Your task to perform on an android device: turn off improve location accuracy Image 0: 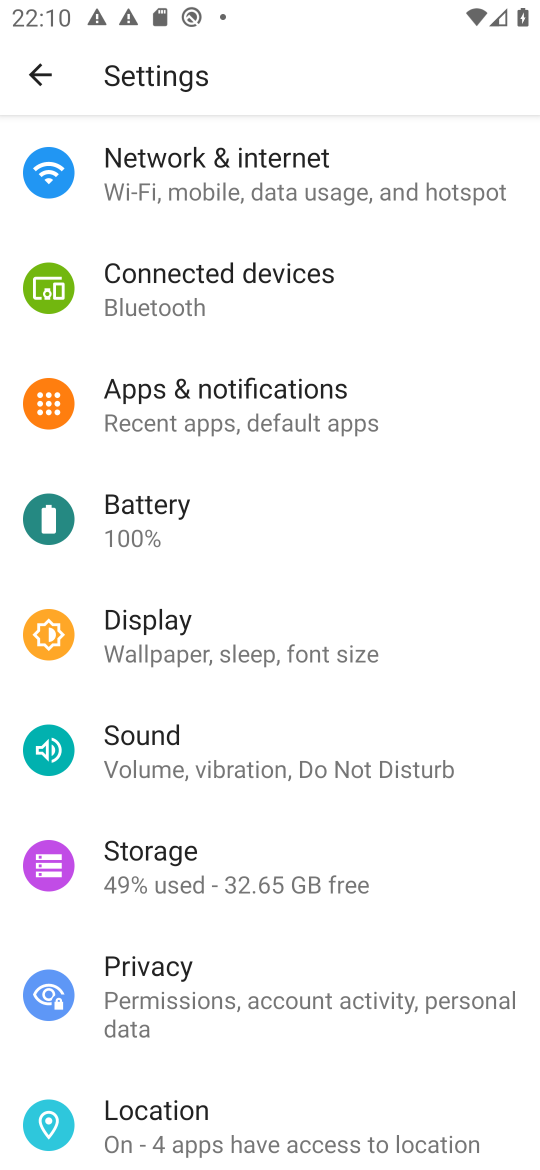
Step 0: click (140, 1111)
Your task to perform on an android device: turn off improve location accuracy Image 1: 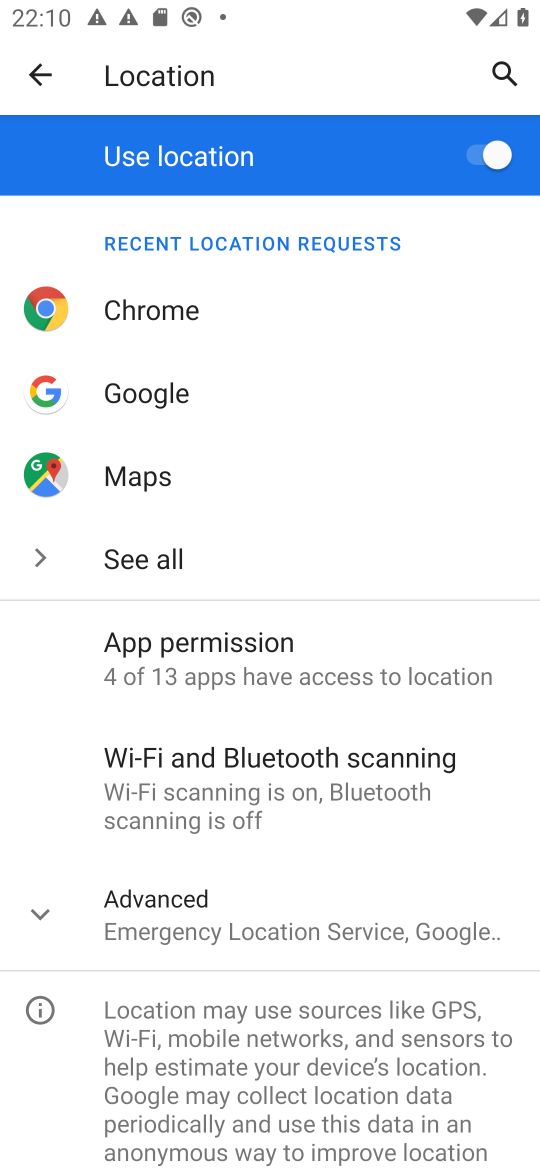
Step 1: click (37, 913)
Your task to perform on an android device: turn off improve location accuracy Image 2: 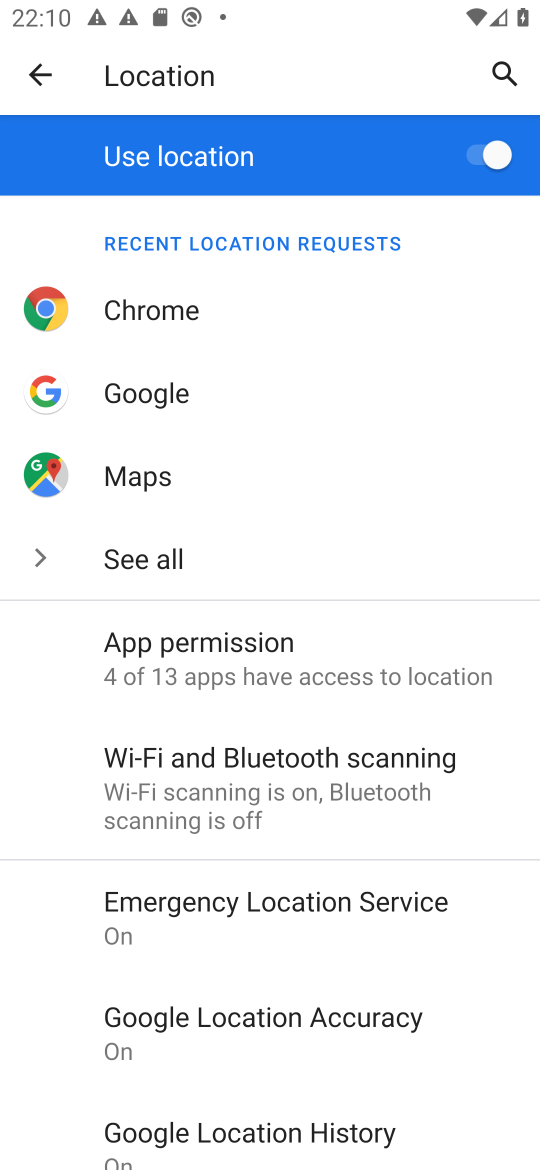
Step 2: click (238, 1014)
Your task to perform on an android device: turn off improve location accuracy Image 3: 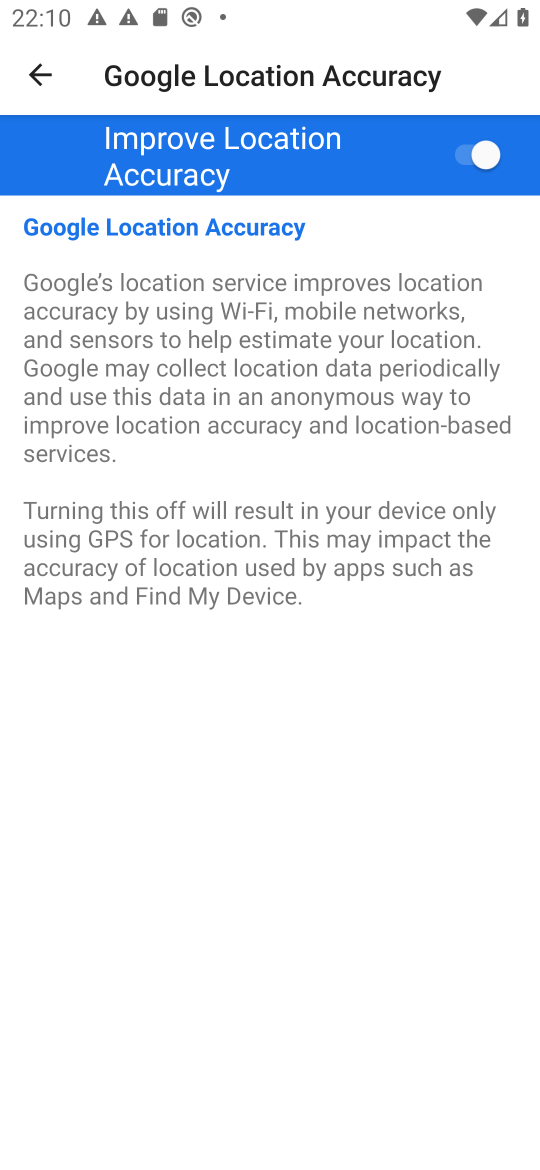
Step 3: click (485, 155)
Your task to perform on an android device: turn off improve location accuracy Image 4: 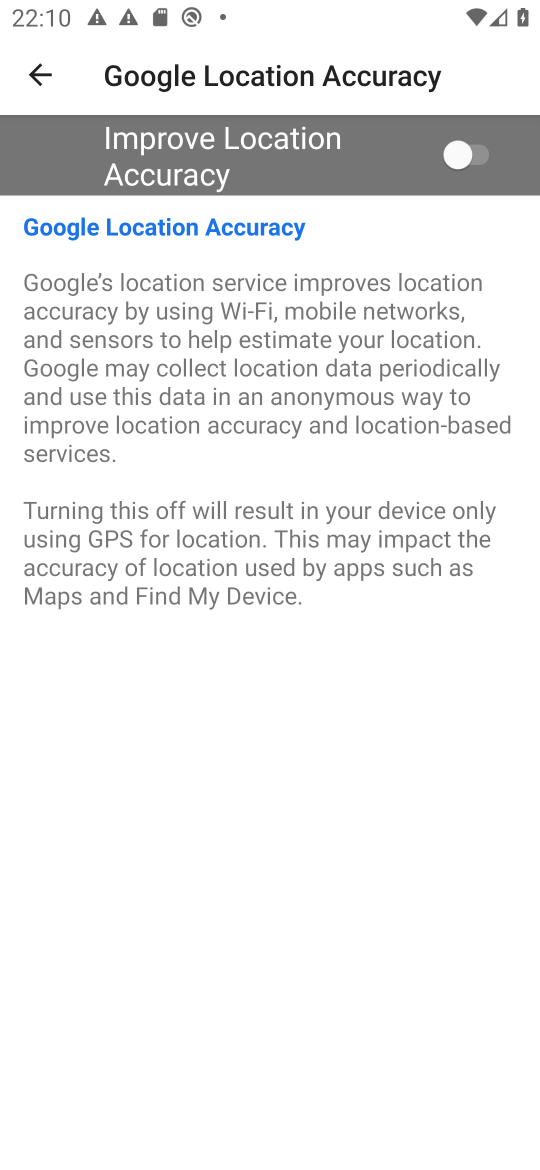
Step 4: task complete